Your task to perform on an android device: Go to Reddit.com Image 0: 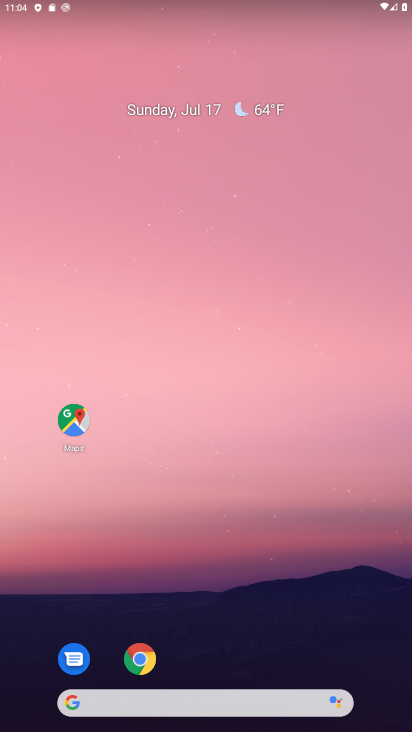
Step 0: drag from (318, 541) to (352, 158)
Your task to perform on an android device: Go to Reddit.com Image 1: 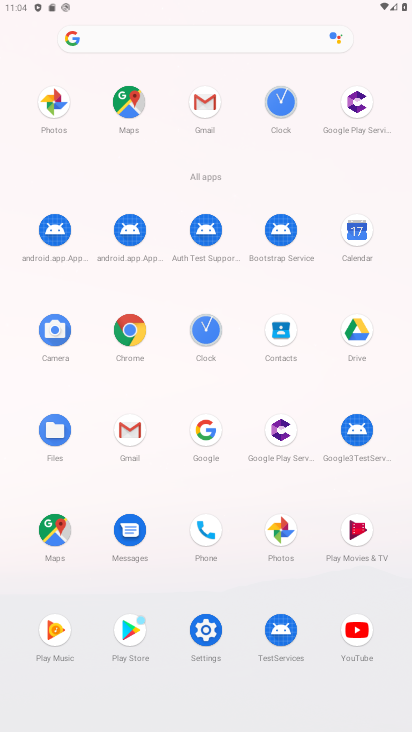
Step 1: click (128, 327)
Your task to perform on an android device: Go to Reddit.com Image 2: 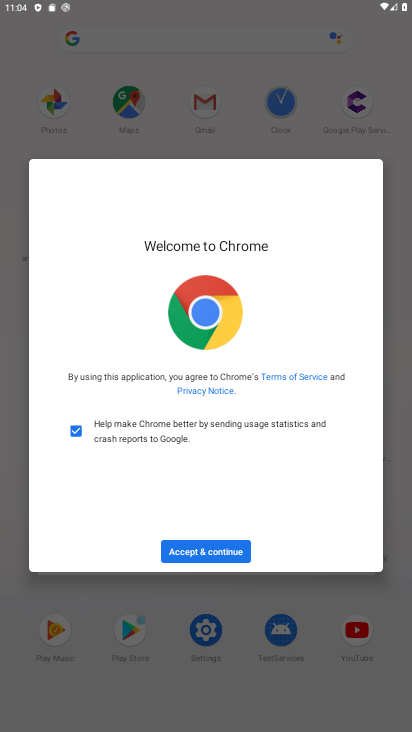
Step 2: click (223, 551)
Your task to perform on an android device: Go to Reddit.com Image 3: 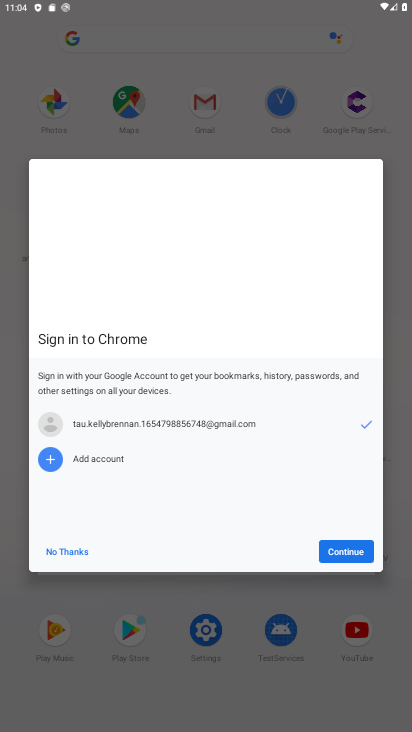
Step 3: click (345, 551)
Your task to perform on an android device: Go to Reddit.com Image 4: 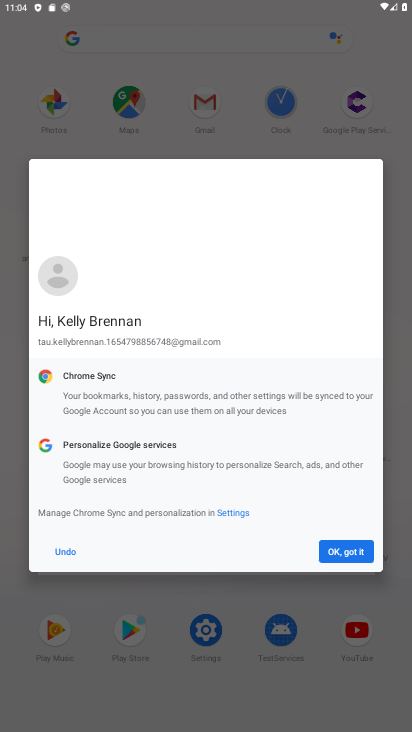
Step 4: click (345, 551)
Your task to perform on an android device: Go to Reddit.com Image 5: 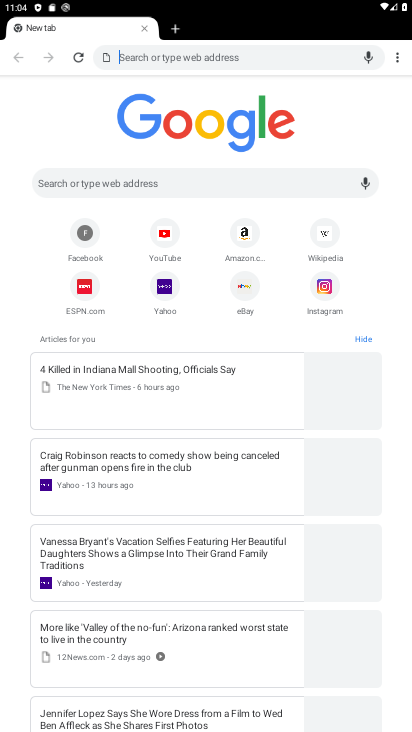
Step 5: click (284, 182)
Your task to perform on an android device: Go to Reddit.com Image 6: 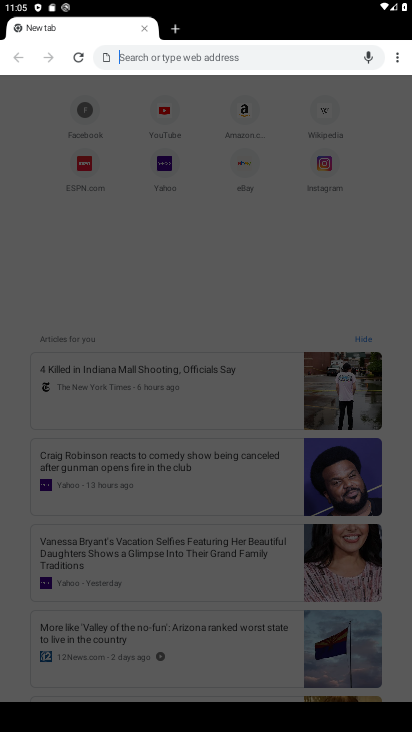
Step 6: type "reddit.com"
Your task to perform on an android device: Go to Reddit.com Image 7: 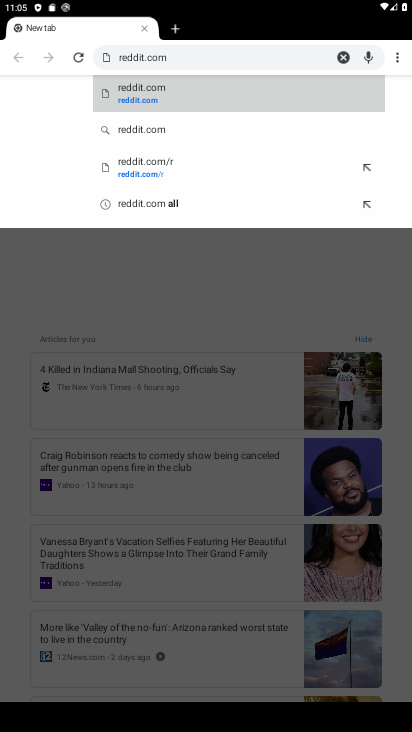
Step 7: click (182, 92)
Your task to perform on an android device: Go to Reddit.com Image 8: 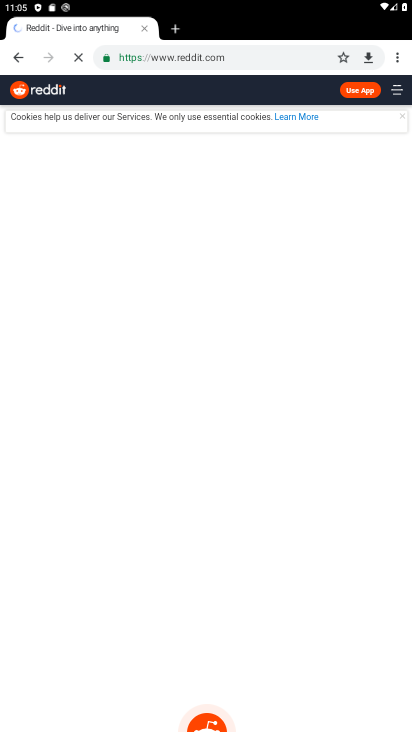
Step 8: task complete